Your task to perform on an android device: Open the calendar and show me this week's events? Image 0: 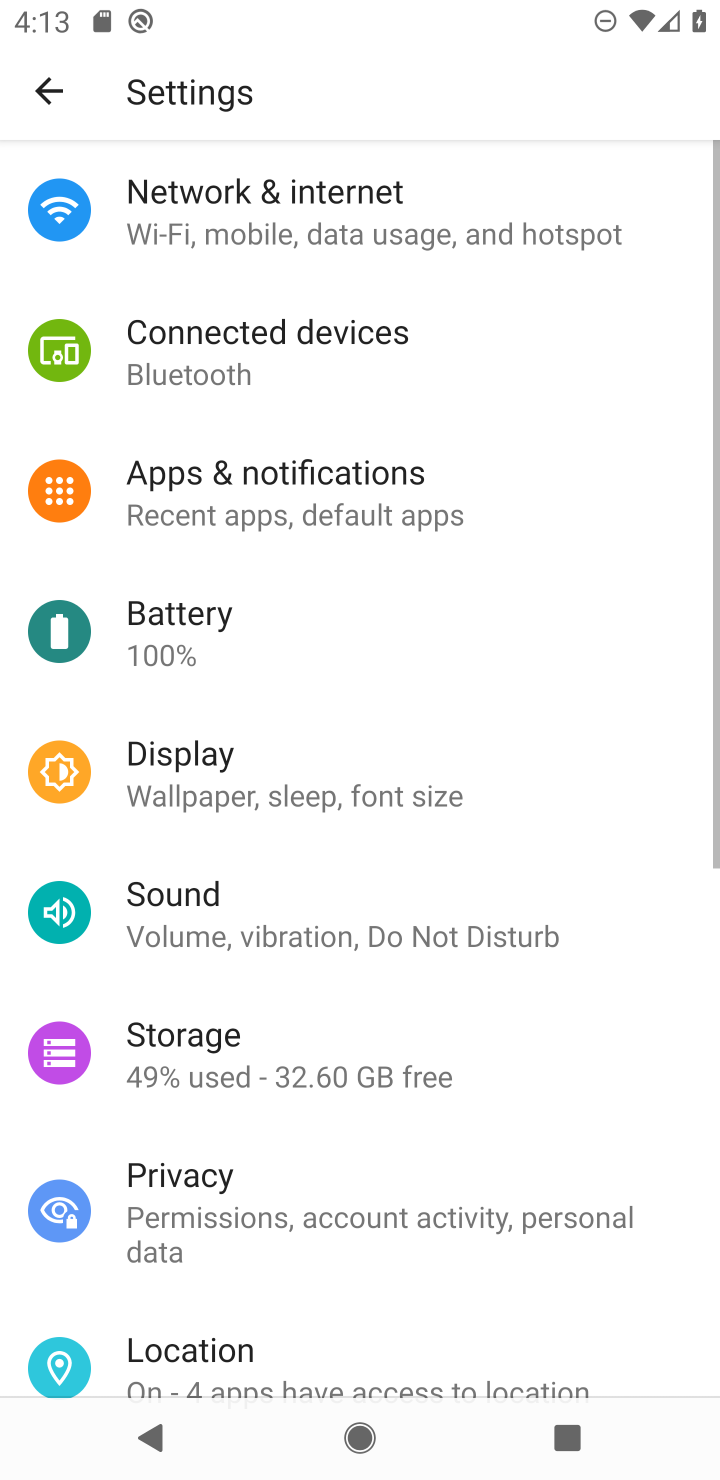
Step 0: press home button
Your task to perform on an android device: Open the calendar and show me this week's events? Image 1: 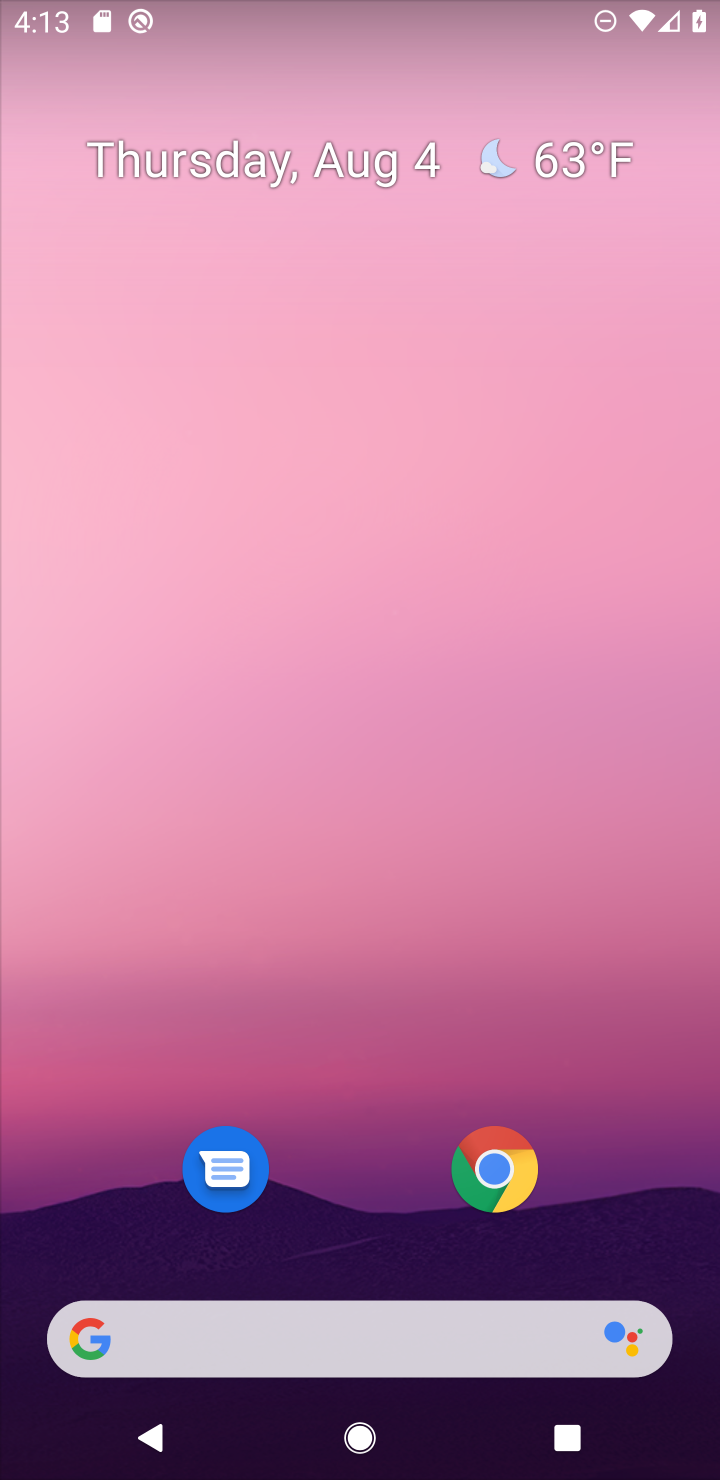
Step 1: drag from (330, 1269) to (390, 96)
Your task to perform on an android device: Open the calendar and show me this week's events? Image 2: 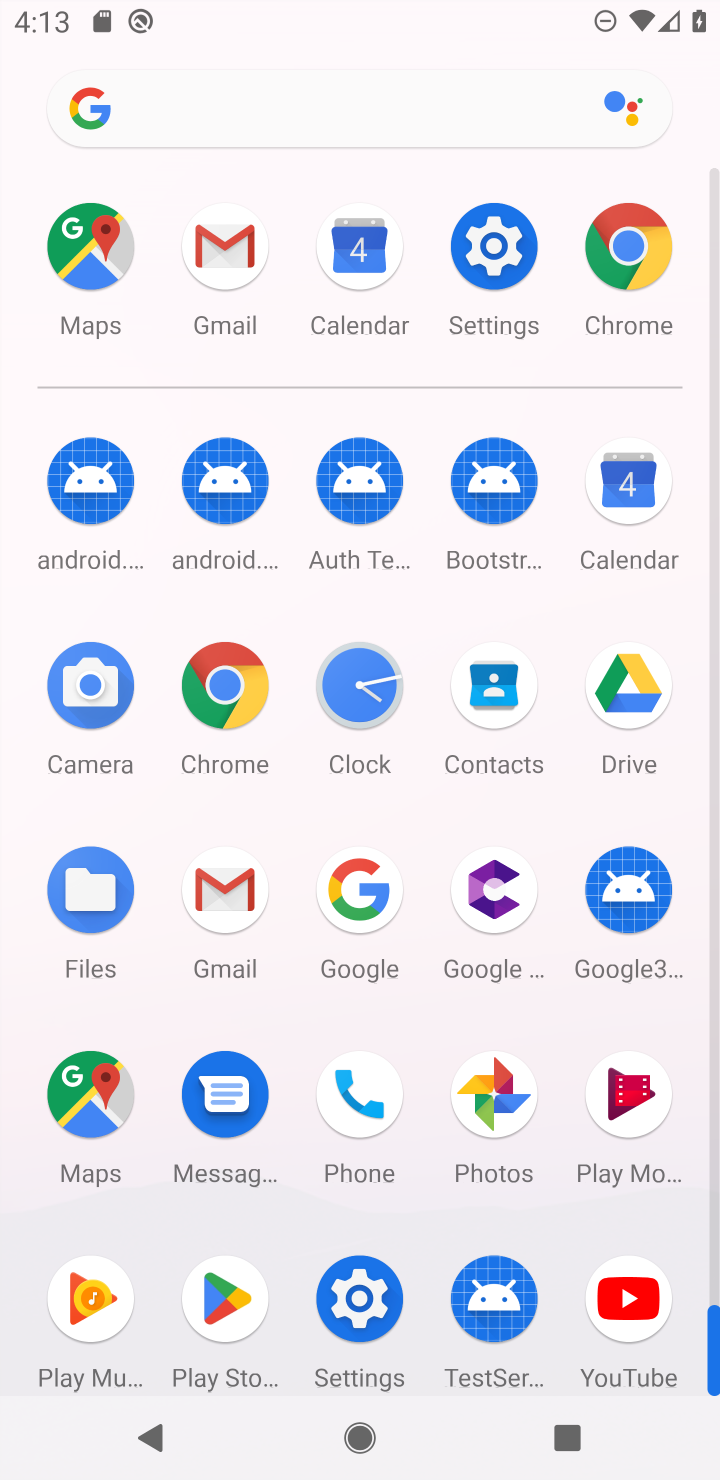
Step 2: click (650, 540)
Your task to perform on an android device: Open the calendar and show me this week's events? Image 3: 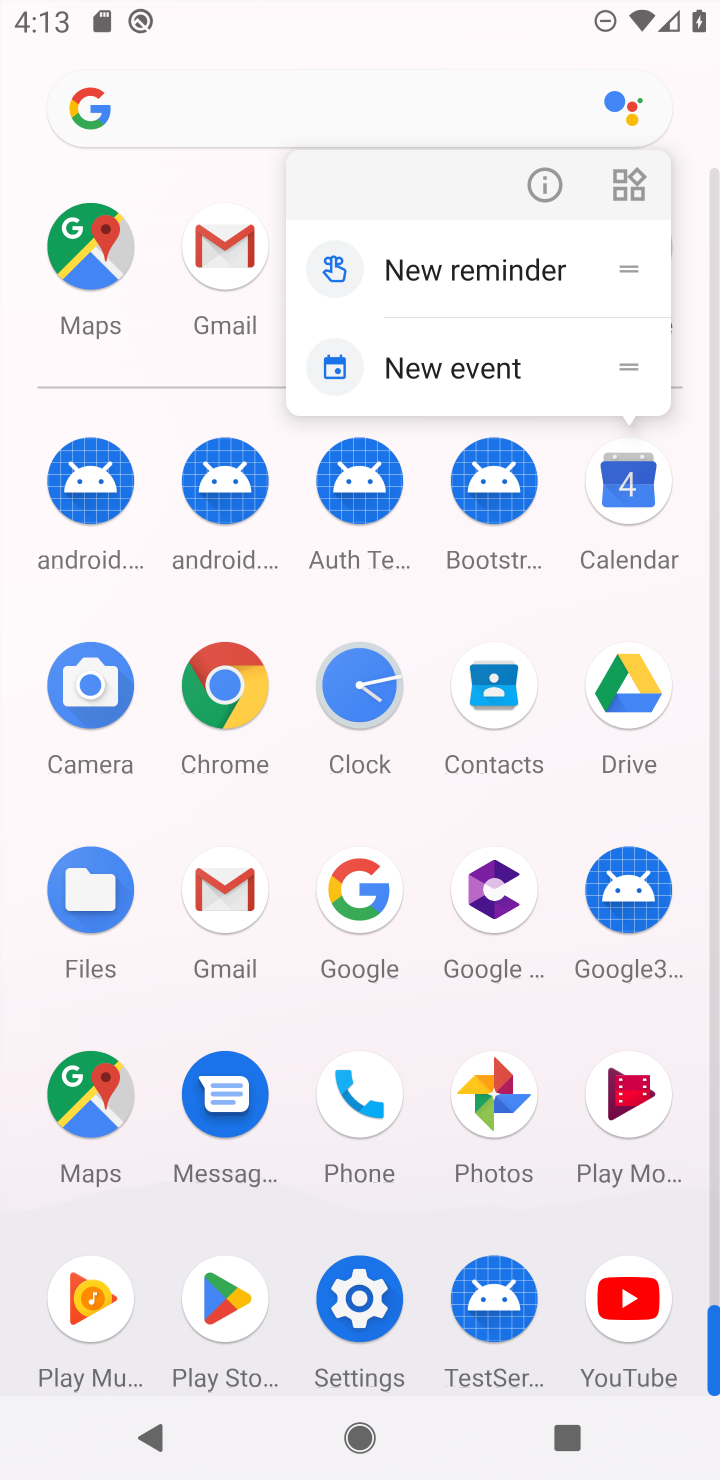
Step 3: click (650, 540)
Your task to perform on an android device: Open the calendar and show me this week's events? Image 4: 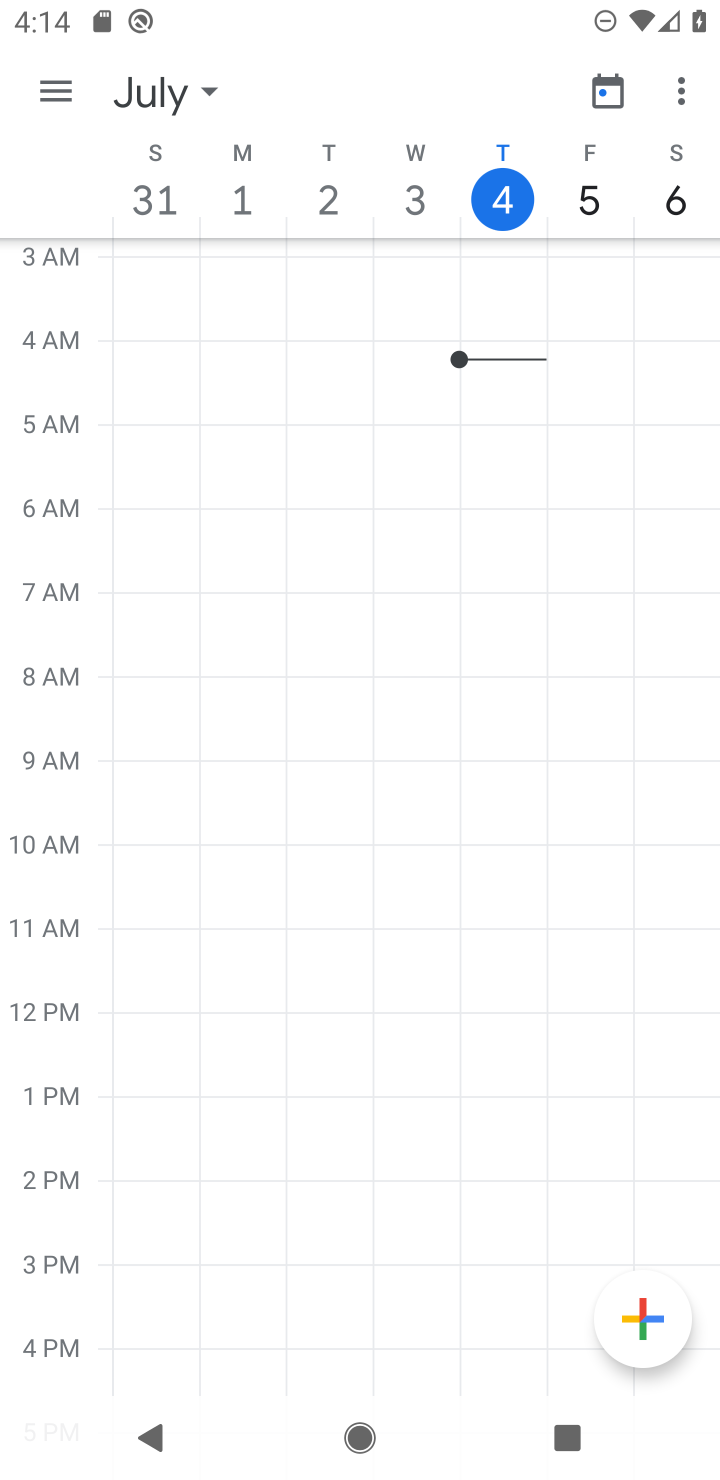
Step 4: click (65, 80)
Your task to perform on an android device: Open the calendar and show me this week's events? Image 5: 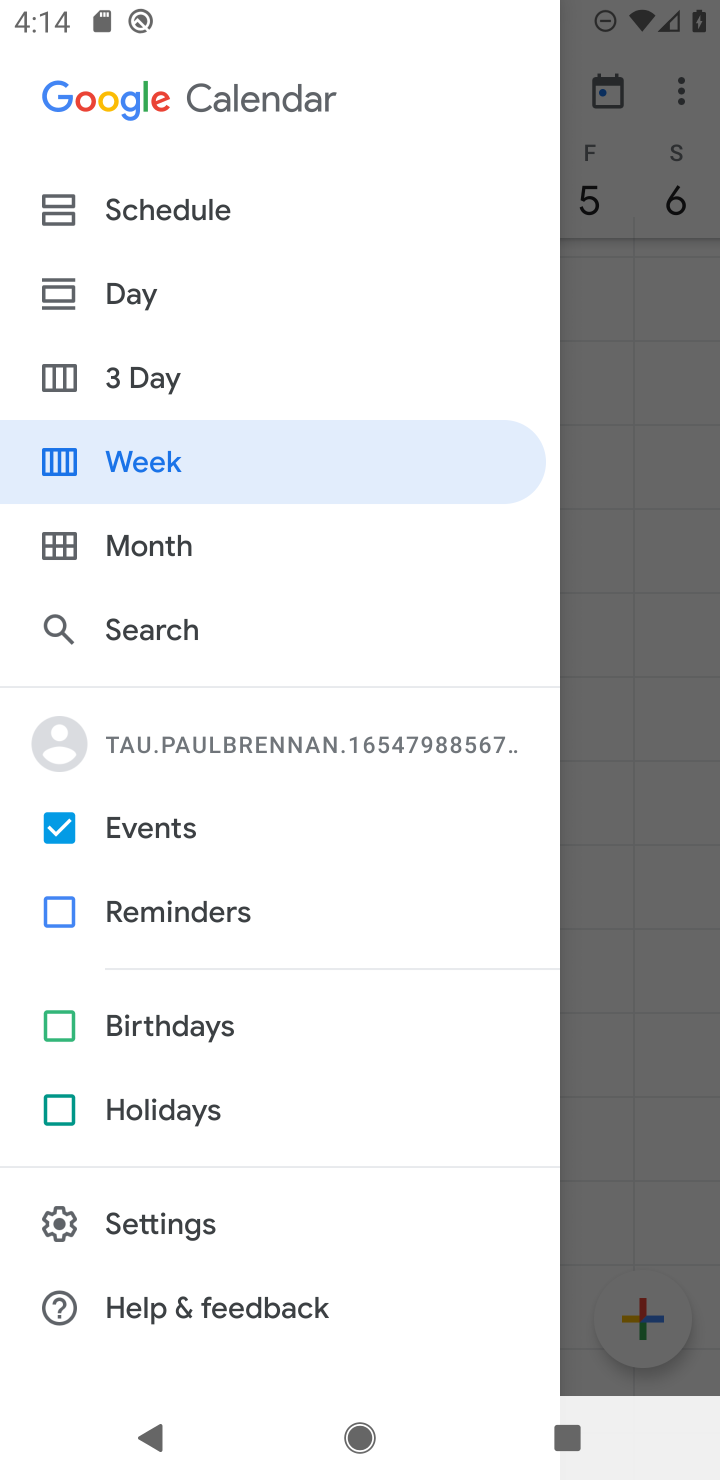
Step 5: click (197, 456)
Your task to perform on an android device: Open the calendar and show me this week's events? Image 6: 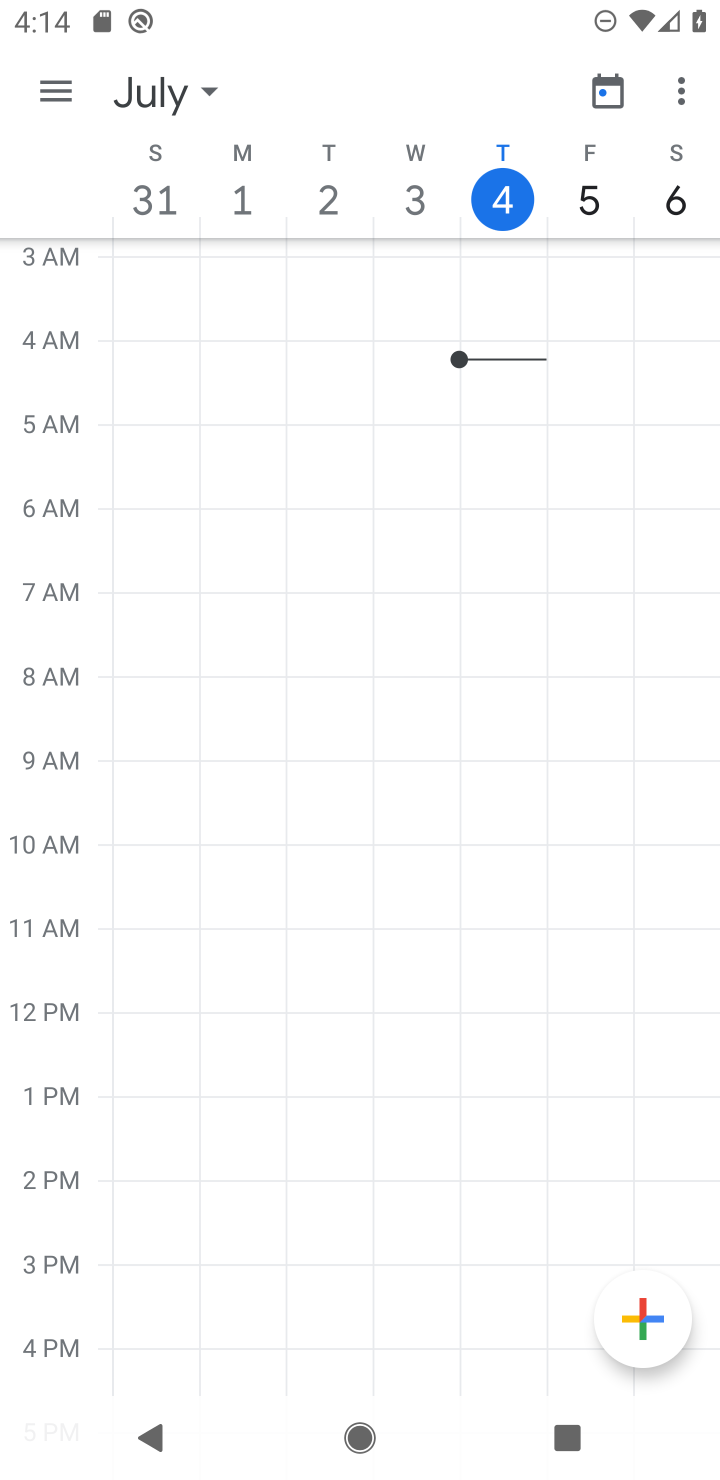
Step 6: task complete